Your task to perform on an android device: turn on location history Image 0: 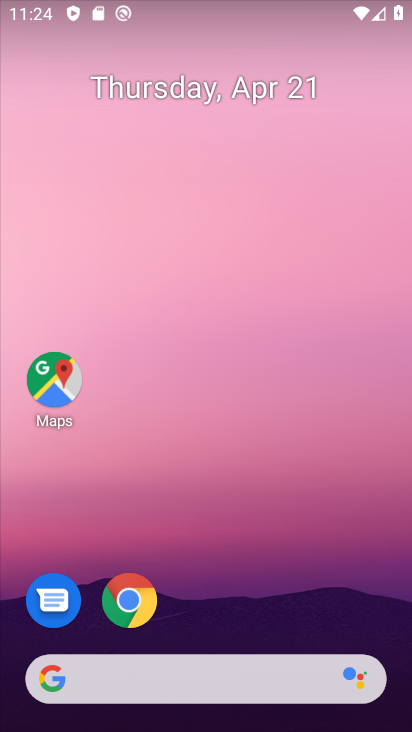
Step 0: drag from (280, 599) to (239, 52)
Your task to perform on an android device: turn on location history Image 1: 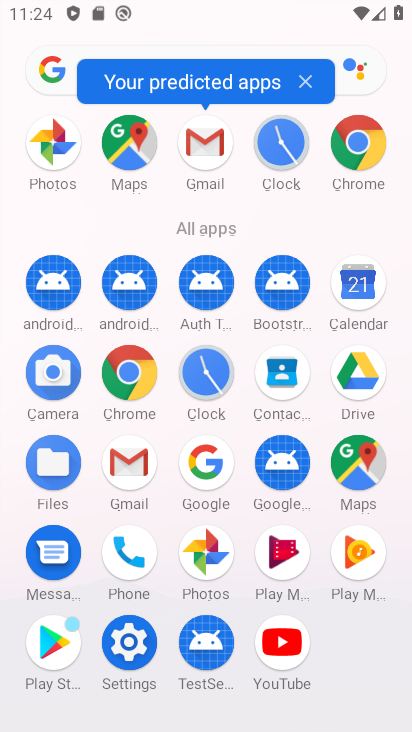
Step 1: drag from (168, 549) to (157, 370)
Your task to perform on an android device: turn on location history Image 2: 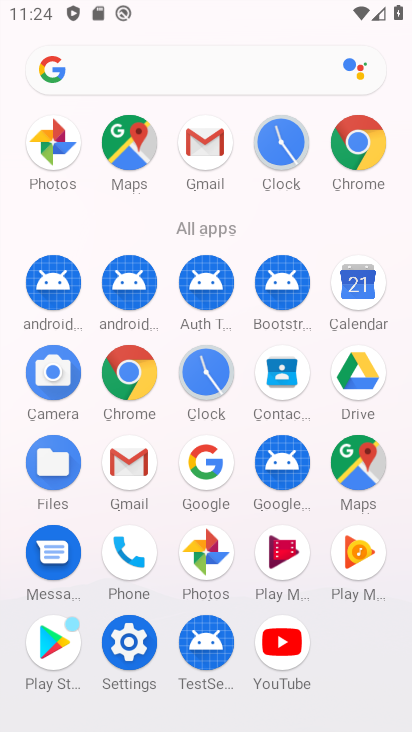
Step 2: drag from (166, 554) to (161, 352)
Your task to perform on an android device: turn on location history Image 3: 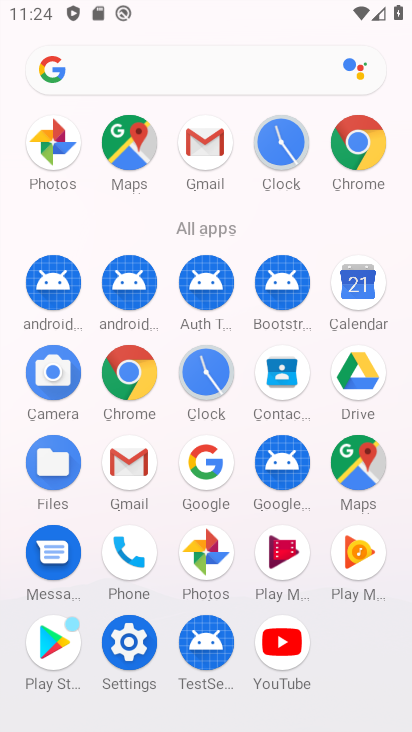
Step 3: click (141, 634)
Your task to perform on an android device: turn on location history Image 4: 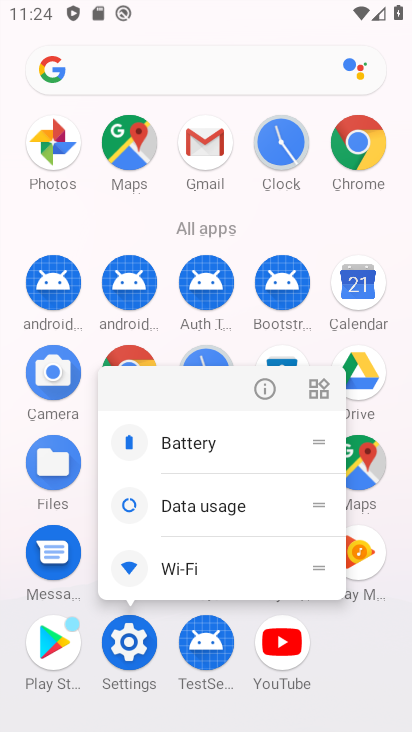
Step 4: click (138, 659)
Your task to perform on an android device: turn on location history Image 5: 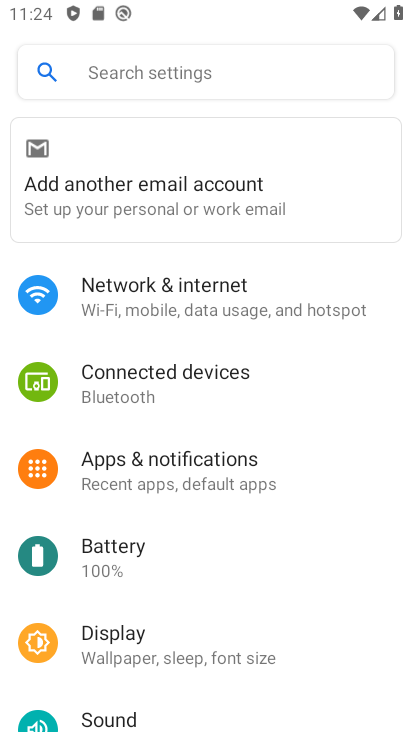
Step 5: drag from (221, 658) to (183, 190)
Your task to perform on an android device: turn on location history Image 6: 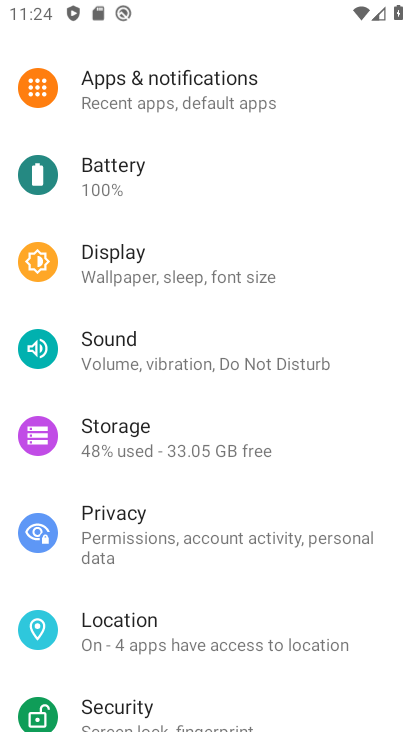
Step 6: drag from (202, 695) to (164, 278)
Your task to perform on an android device: turn on location history Image 7: 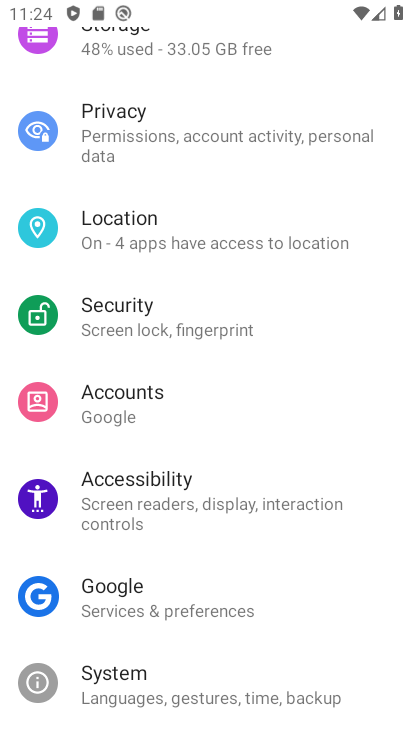
Step 7: drag from (207, 684) to (190, 419)
Your task to perform on an android device: turn on location history Image 8: 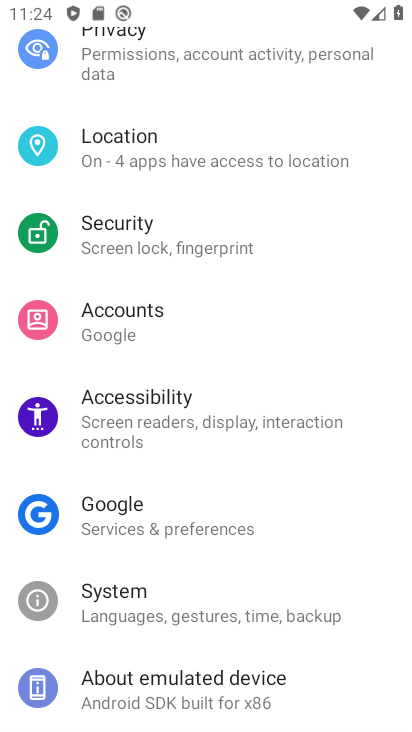
Step 8: click (190, 137)
Your task to perform on an android device: turn on location history Image 9: 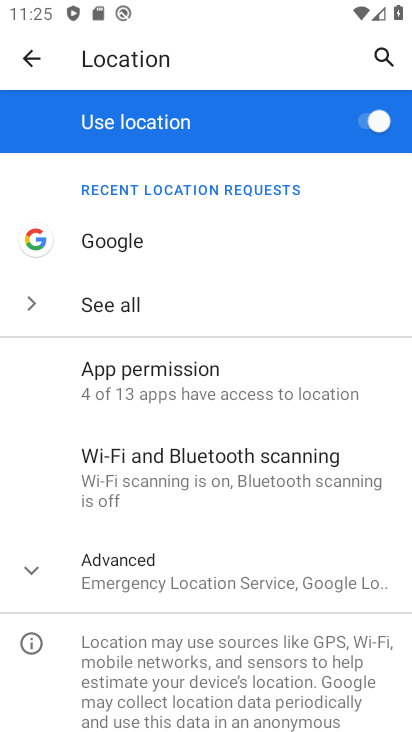
Step 9: click (163, 578)
Your task to perform on an android device: turn on location history Image 10: 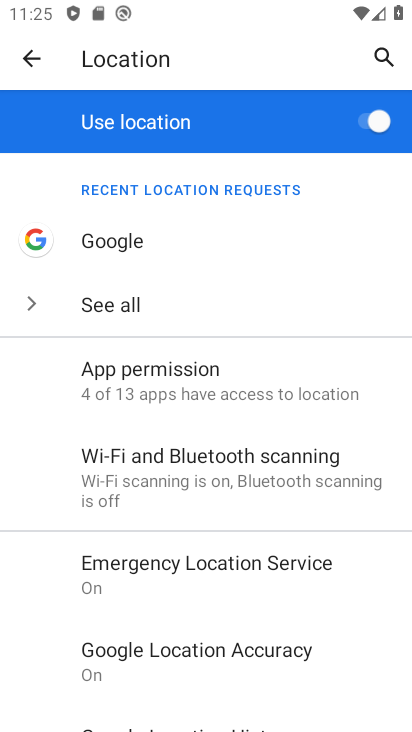
Step 10: drag from (240, 655) to (210, 358)
Your task to perform on an android device: turn on location history Image 11: 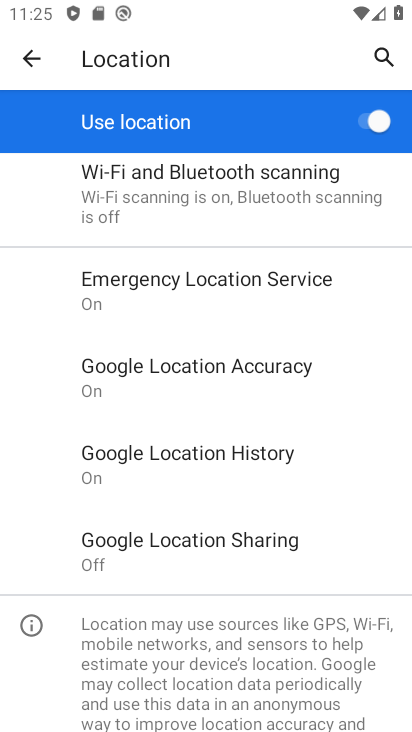
Step 11: click (202, 456)
Your task to perform on an android device: turn on location history Image 12: 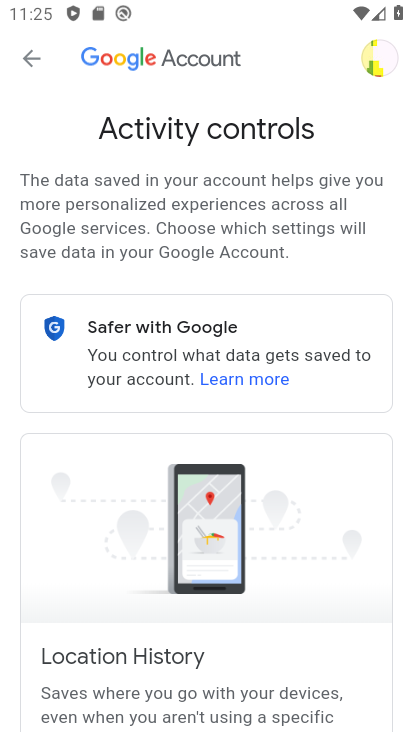
Step 12: task complete